Your task to perform on an android device: Open Yahoo.com Image 0: 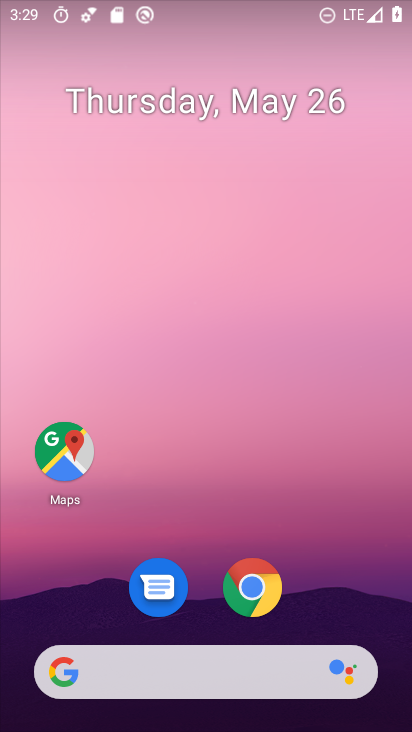
Step 0: click (232, 589)
Your task to perform on an android device: Open Yahoo.com Image 1: 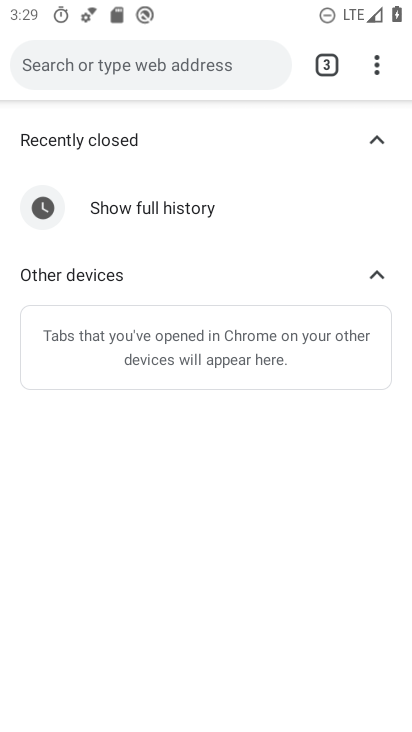
Step 1: click (177, 80)
Your task to perform on an android device: Open Yahoo.com Image 2: 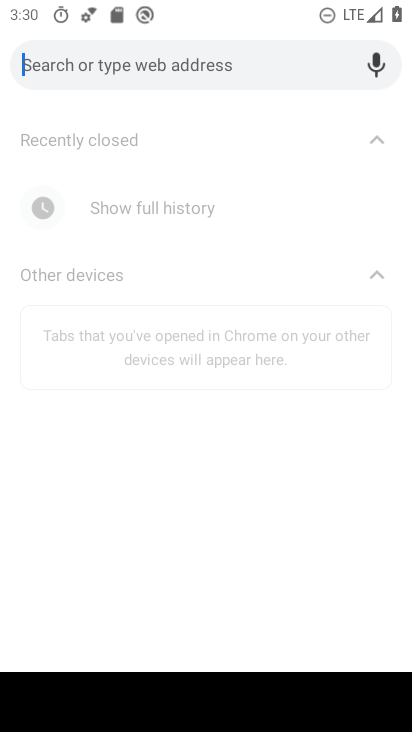
Step 2: type "yshoo.com"
Your task to perform on an android device: Open Yahoo.com Image 3: 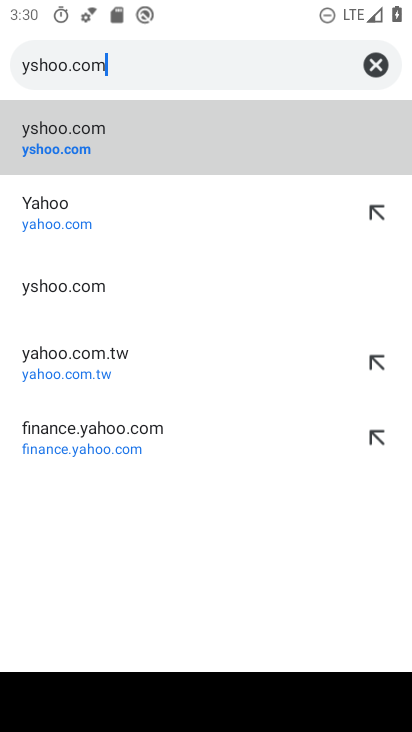
Step 3: click (71, 148)
Your task to perform on an android device: Open Yahoo.com Image 4: 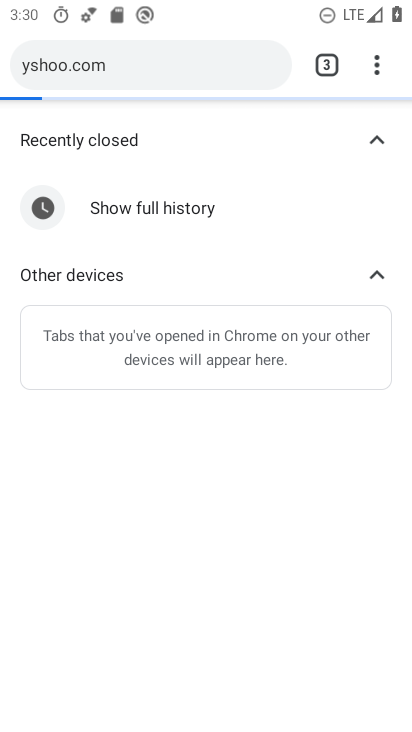
Step 4: click (126, 63)
Your task to perform on an android device: Open Yahoo.com Image 5: 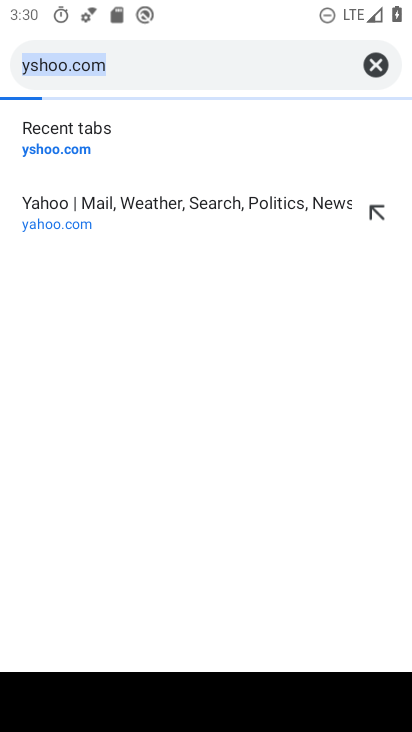
Step 5: drag from (85, 146) to (179, 371)
Your task to perform on an android device: Open Yahoo.com Image 6: 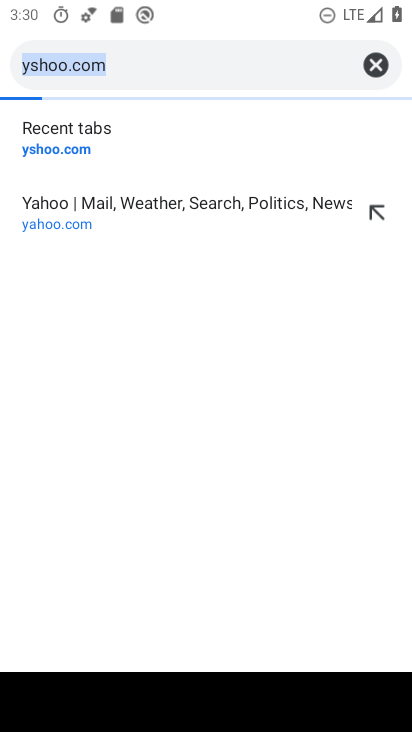
Step 6: click (49, 225)
Your task to perform on an android device: Open Yahoo.com Image 7: 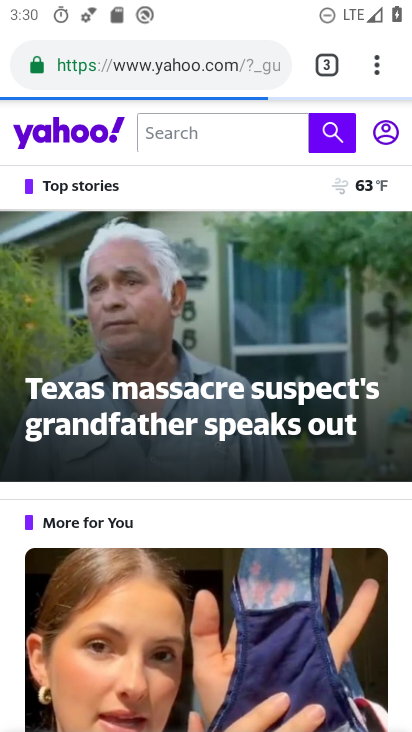
Step 7: task complete